Your task to perform on an android device: Open Android settings Image 0: 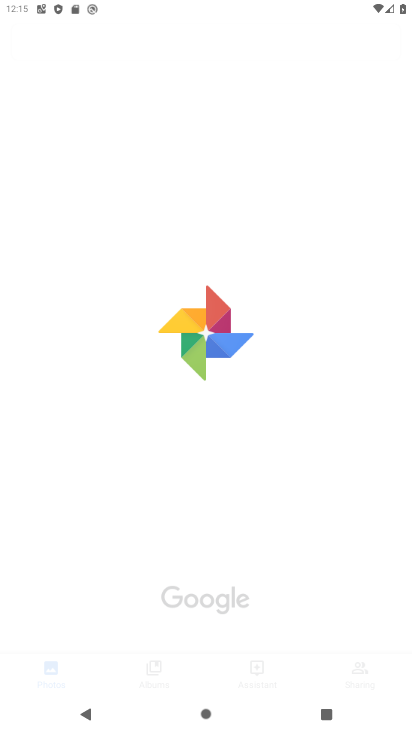
Step 0: drag from (266, 563) to (210, 323)
Your task to perform on an android device: Open Android settings Image 1: 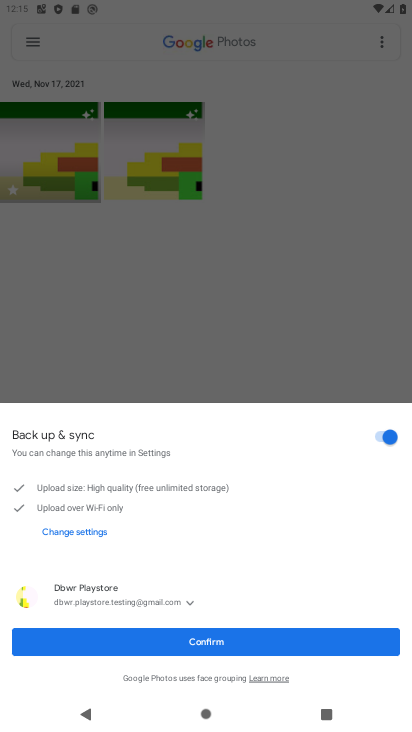
Step 1: press home button
Your task to perform on an android device: Open Android settings Image 2: 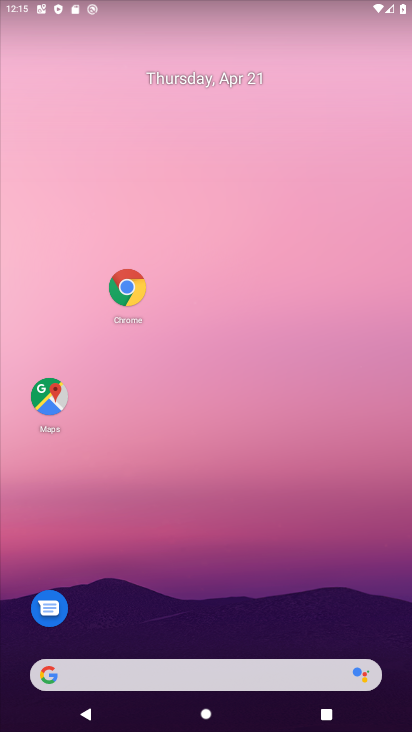
Step 2: drag from (247, 458) to (171, 96)
Your task to perform on an android device: Open Android settings Image 3: 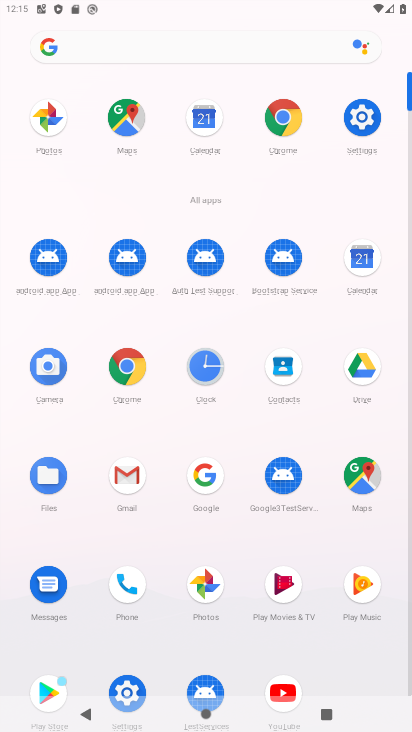
Step 3: click (367, 120)
Your task to perform on an android device: Open Android settings Image 4: 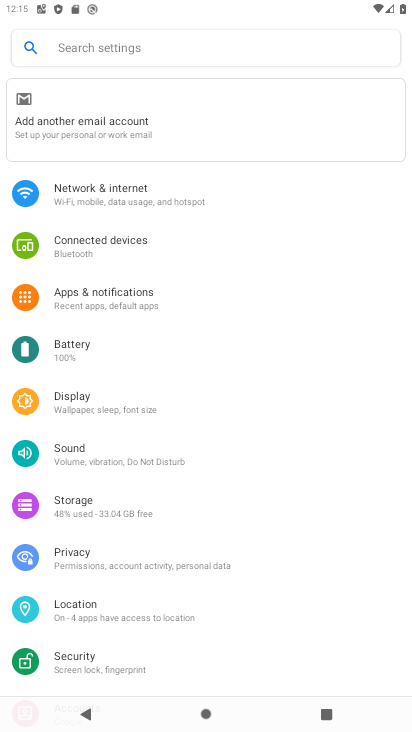
Step 4: drag from (158, 601) to (177, 154)
Your task to perform on an android device: Open Android settings Image 5: 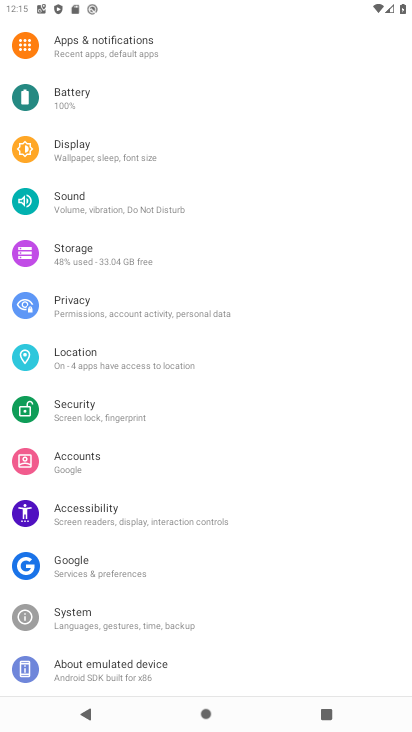
Step 5: click (117, 671)
Your task to perform on an android device: Open Android settings Image 6: 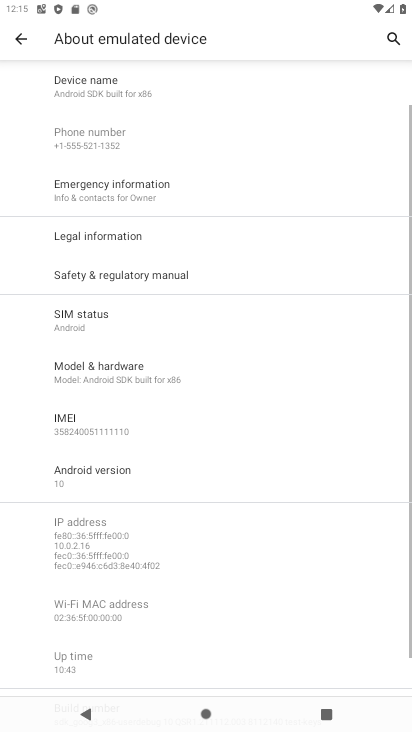
Step 6: drag from (117, 671) to (107, 474)
Your task to perform on an android device: Open Android settings Image 7: 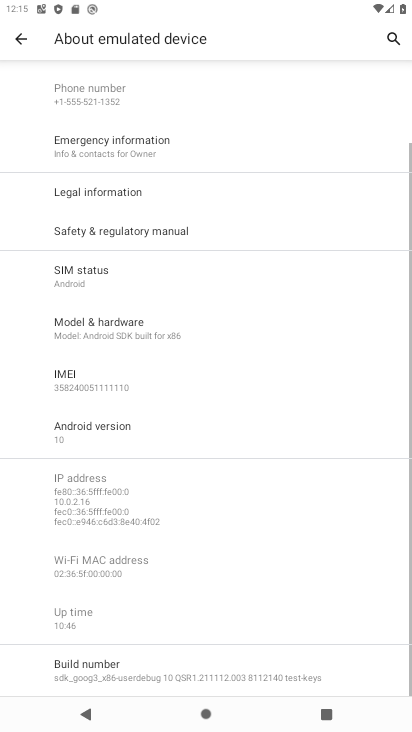
Step 7: click (111, 427)
Your task to perform on an android device: Open Android settings Image 8: 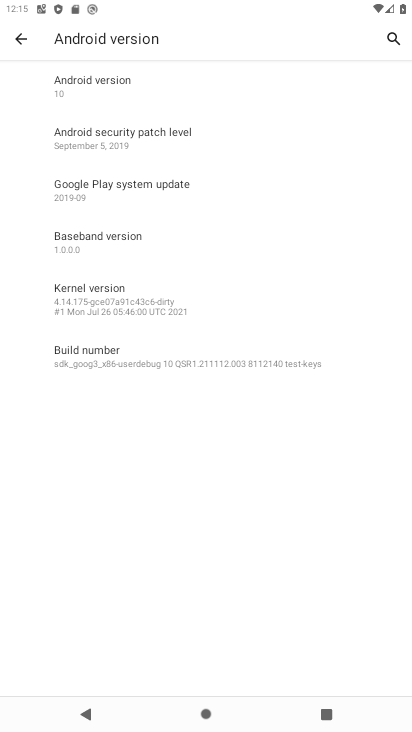
Step 8: task complete